Your task to perform on an android device: turn off data saver in the chrome app Image 0: 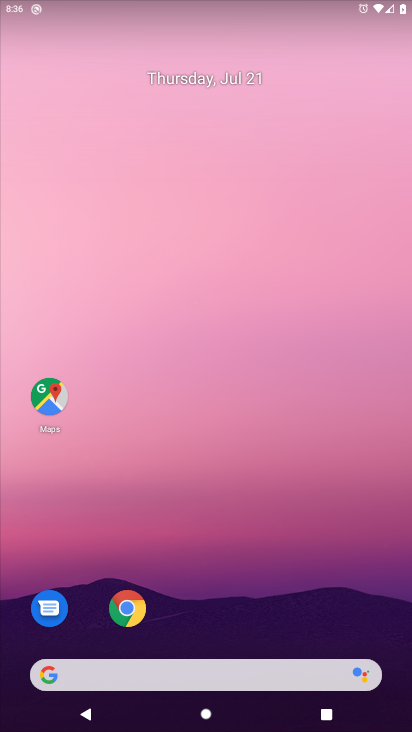
Step 0: click (122, 598)
Your task to perform on an android device: turn off data saver in the chrome app Image 1: 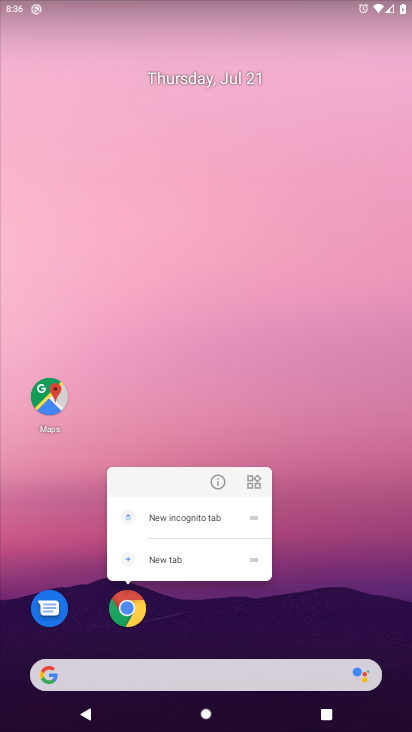
Step 1: click (130, 609)
Your task to perform on an android device: turn off data saver in the chrome app Image 2: 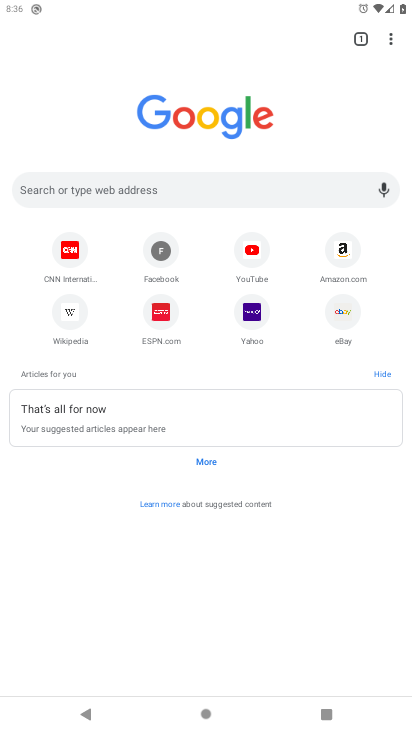
Step 2: click (394, 33)
Your task to perform on an android device: turn off data saver in the chrome app Image 3: 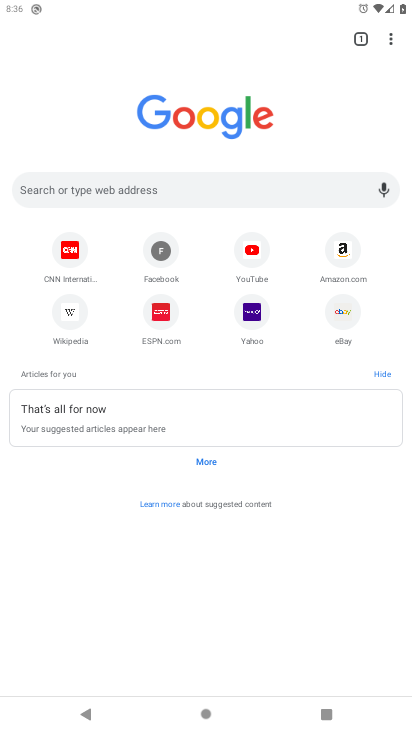
Step 3: click (397, 44)
Your task to perform on an android device: turn off data saver in the chrome app Image 4: 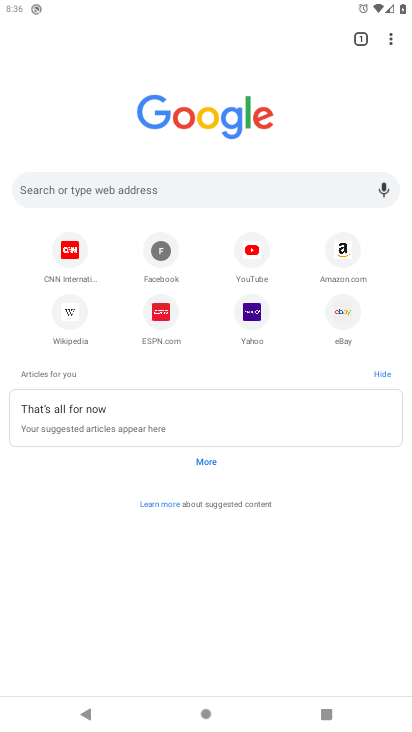
Step 4: click (397, 44)
Your task to perform on an android device: turn off data saver in the chrome app Image 5: 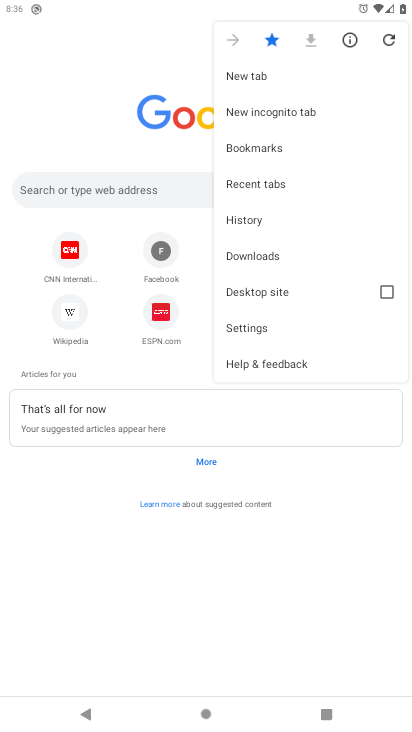
Step 5: click (241, 324)
Your task to perform on an android device: turn off data saver in the chrome app Image 6: 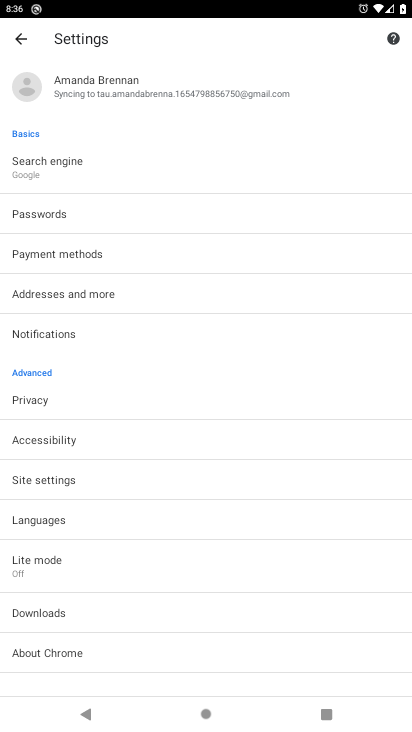
Step 6: click (65, 484)
Your task to perform on an android device: turn off data saver in the chrome app Image 7: 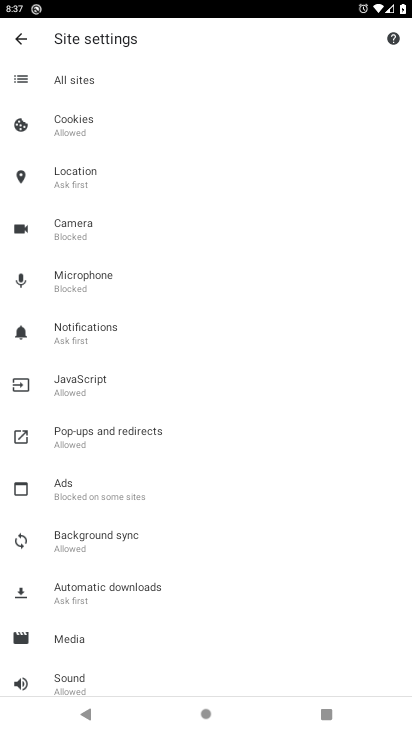
Step 7: task complete